Your task to perform on an android device: set the stopwatch Image 0: 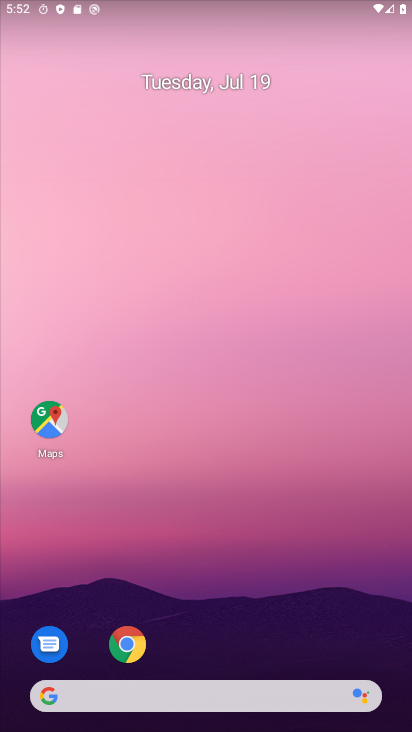
Step 0: drag from (236, 488) to (245, 182)
Your task to perform on an android device: set the stopwatch Image 1: 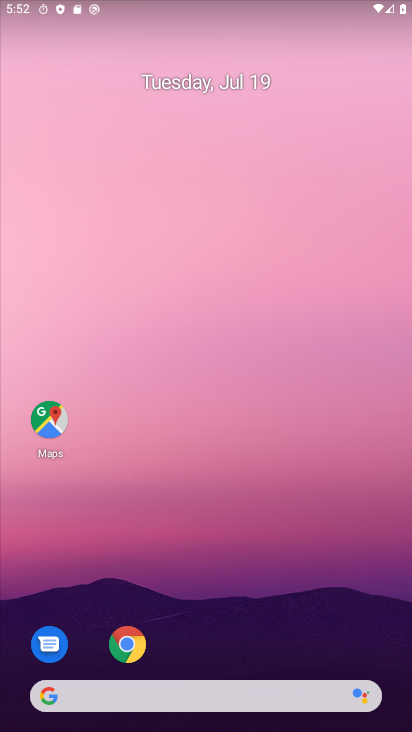
Step 1: drag from (242, 619) to (250, 199)
Your task to perform on an android device: set the stopwatch Image 2: 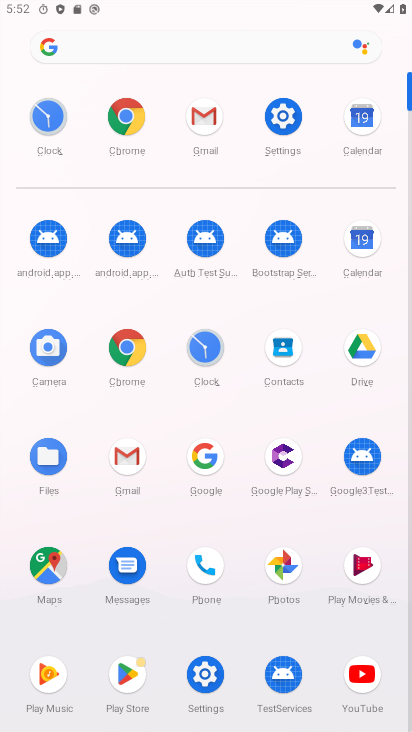
Step 2: click (205, 349)
Your task to perform on an android device: set the stopwatch Image 3: 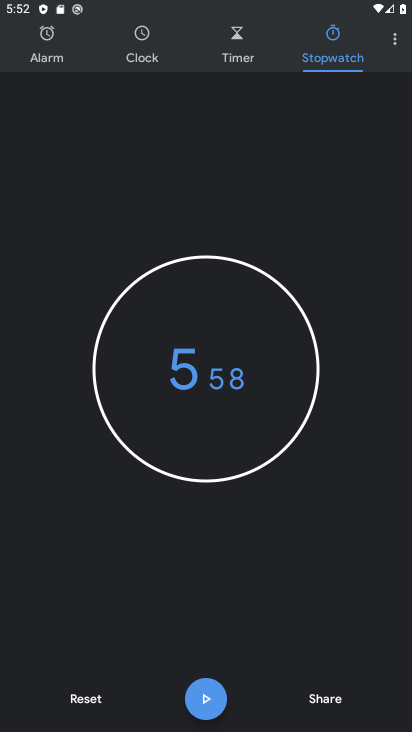
Step 3: click (87, 699)
Your task to perform on an android device: set the stopwatch Image 4: 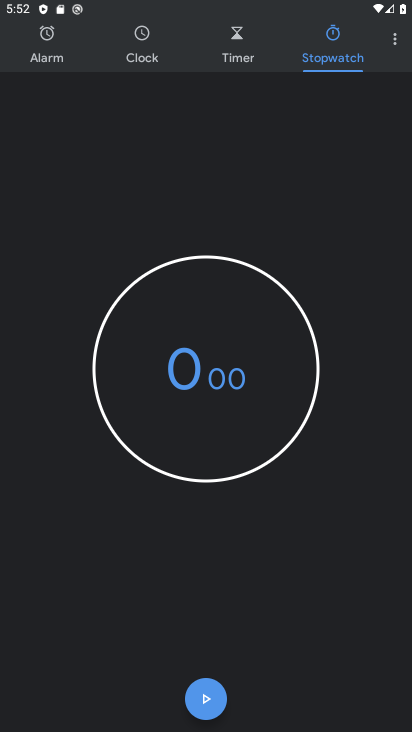
Step 4: task complete